Your task to perform on an android device: Is it going to rain today? Image 0: 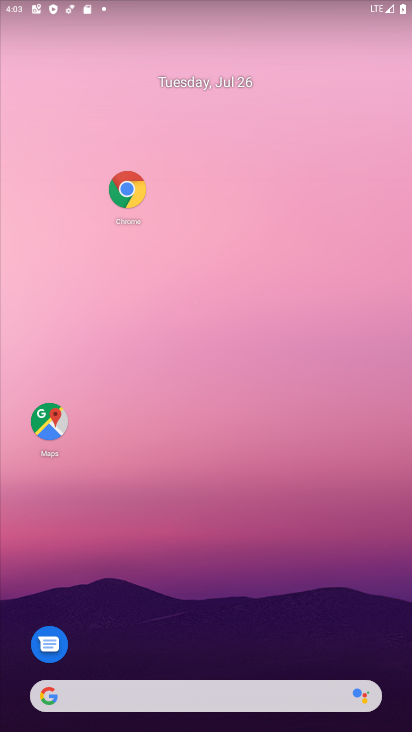
Step 0: drag from (222, 677) to (185, 142)
Your task to perform on an android device: Is it going to rain today? Image 1: 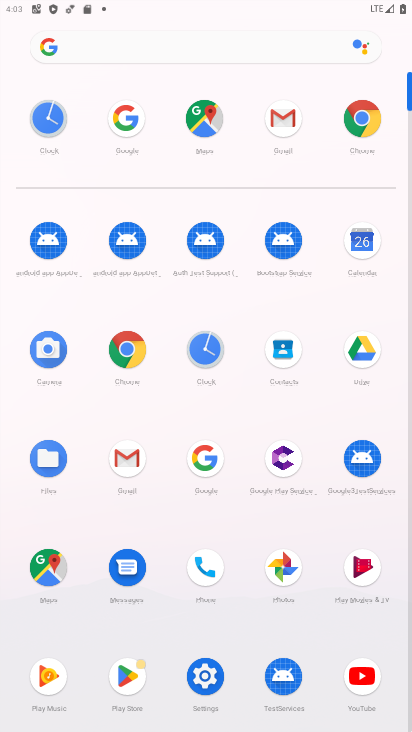
Step 1: click (123, 115)
Your task to perform on an android device: Is it going to rain today? Image 2: 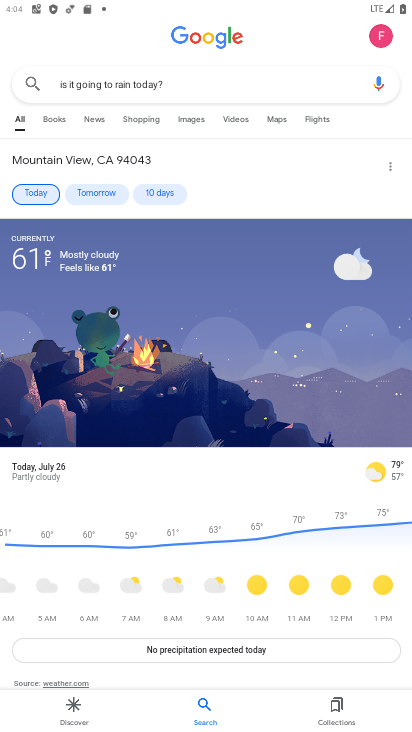
Step 2: task complete